Your task to perform on an android device: turn on improve location accuracy Image 0: 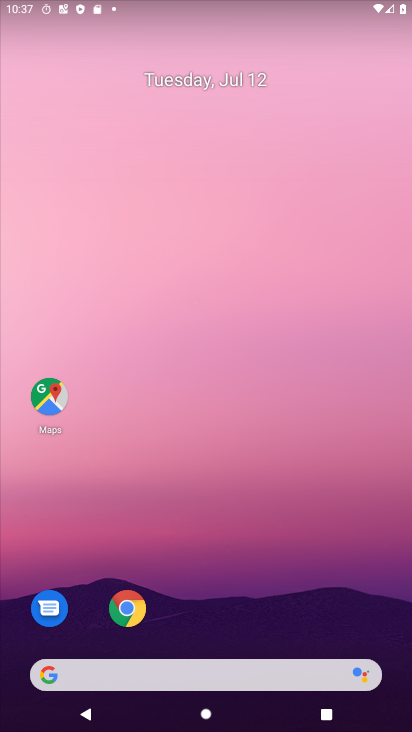
Step 0: drag from (213, 588) to (265, 294)
Your task to perform on an android device: turn on improve location accuracy Image 1: 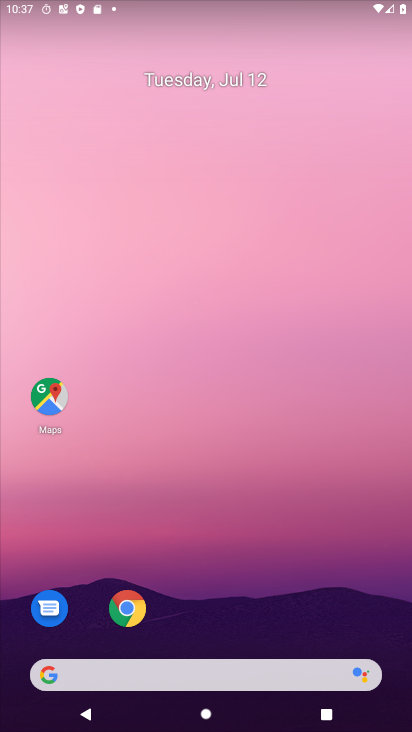
Step 1: drag from (323, 634) to (345, 1)
Your task to perform on an android device: turn on improve location accuracy Image 2: 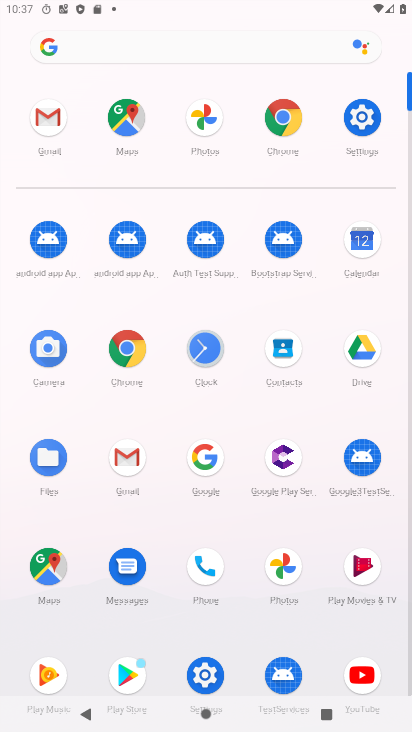
Step 2: click (365, 117)
Your task to perform on an android device: turn on improve location accuracy Image 3: 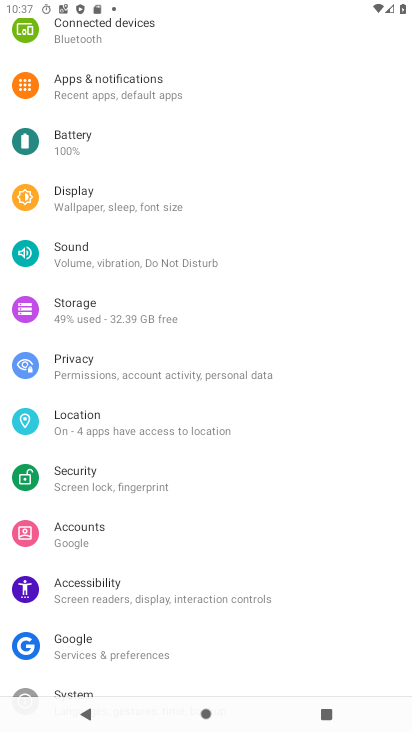
Step 3: click (143, 423)
Your task to perform on an android device: turn on improve location accuracy Image 4: 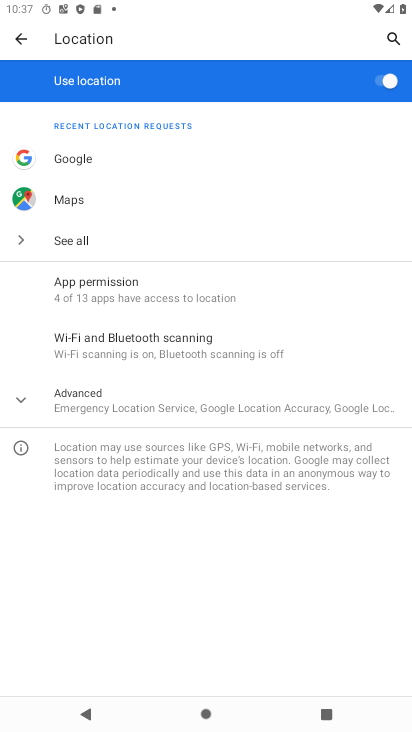
Step 4: click (99, 389)
Your task to perform on an android device: turn on improve location accuracy Image 5: 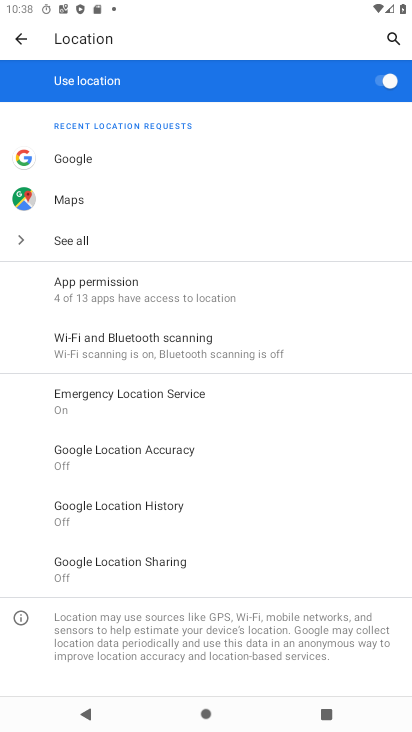
Step 5: click (125, 440)
Your task to perform on an android device: turn on improve location accuracy Image 6: 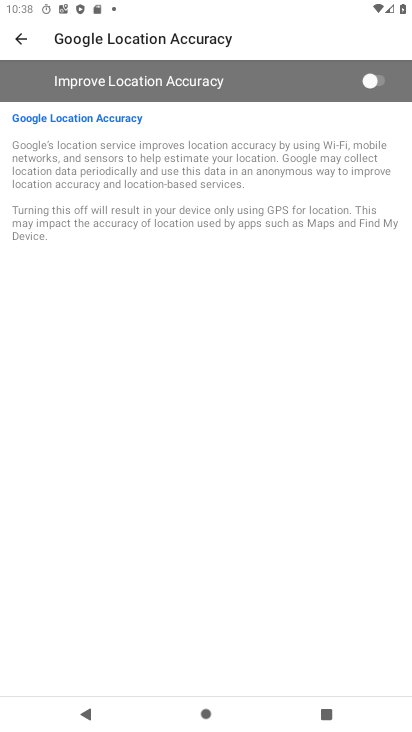
Step 6: click (366, 72)
Your task to perform on an android device: turn on improve location accuracy Image 7: 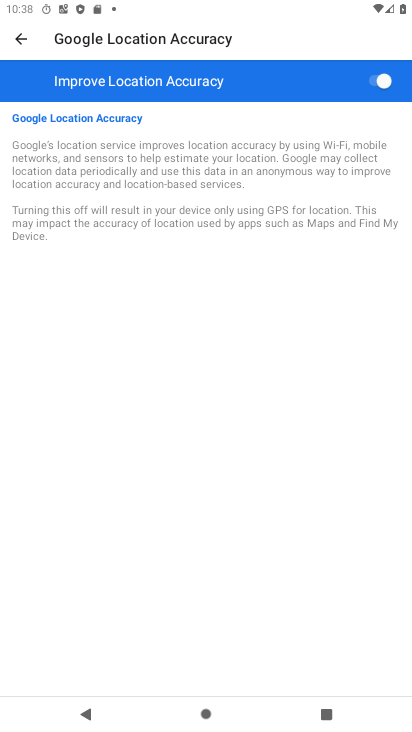
Step 7: task complete